Your task to perform on an android device: What's on my calendar tomorrow? Image 0: 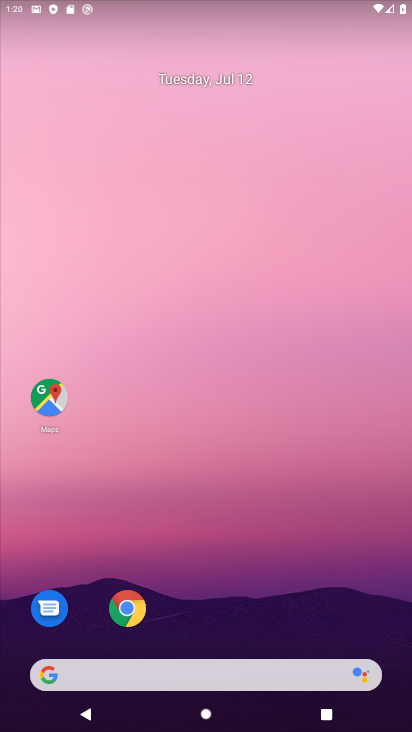
Step 0: drag from (396, 648) to (364, 345)
Your task to perform on an android device: What's on my calendar tomorrow? Image 1: 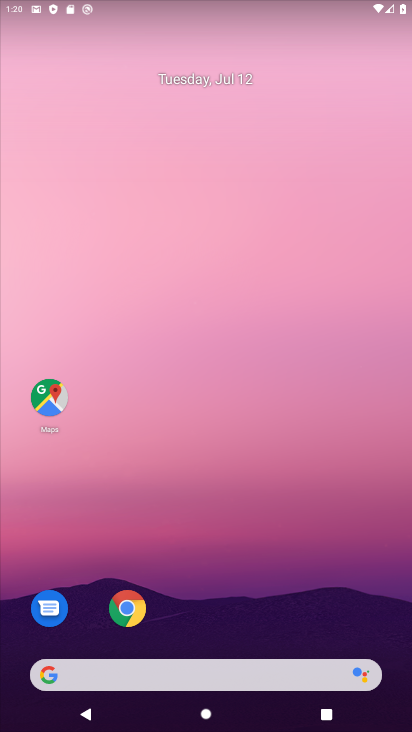
Step 1: drag from (399, 643) to (357, 257)
Your task to perform on an android device: What's on my calendar tomorrow? Image 2: 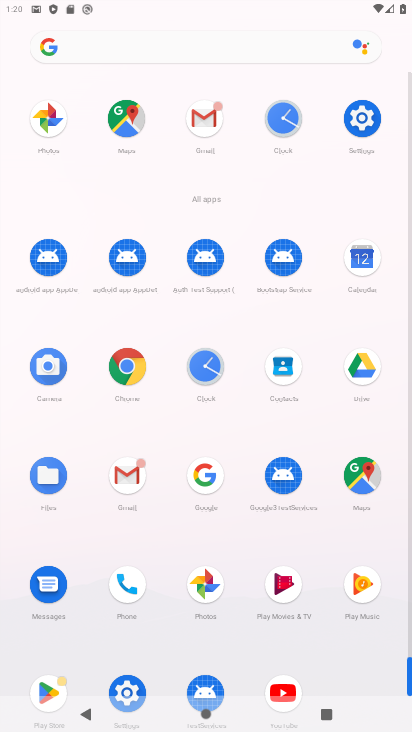
Step 2: click (359, 259)
Your task to perform on an android device: What's on my calendar tomorrow? Image 3: 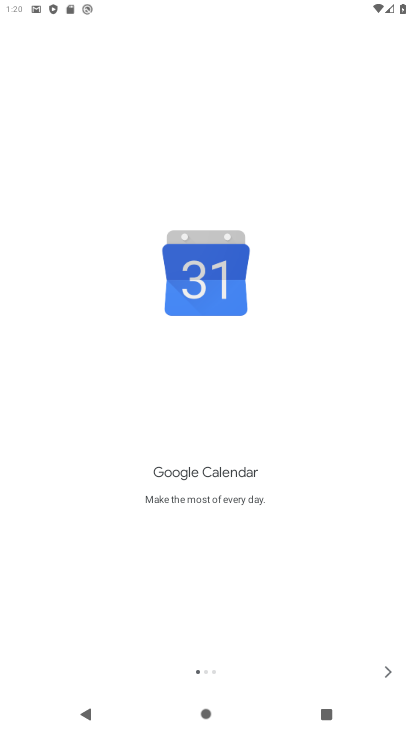
Step 3: click (388, 672)
Your task to perform on an android device: What's on my calendar tomorrow? Image 4: 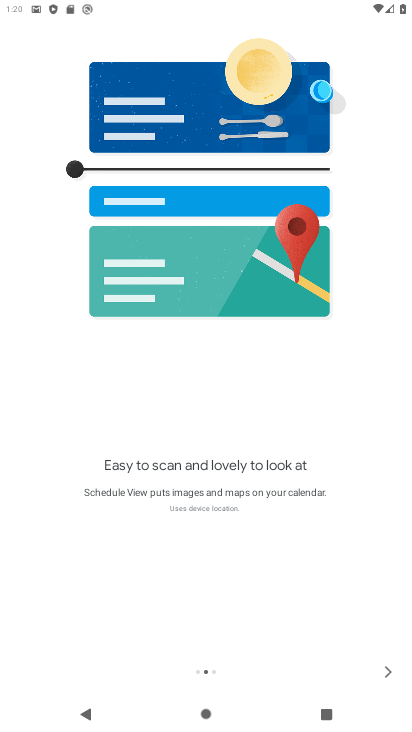
Step 4: click (388, 672)
Your task to perform on an android device: What's on my calendar tomorrow? Image 5: 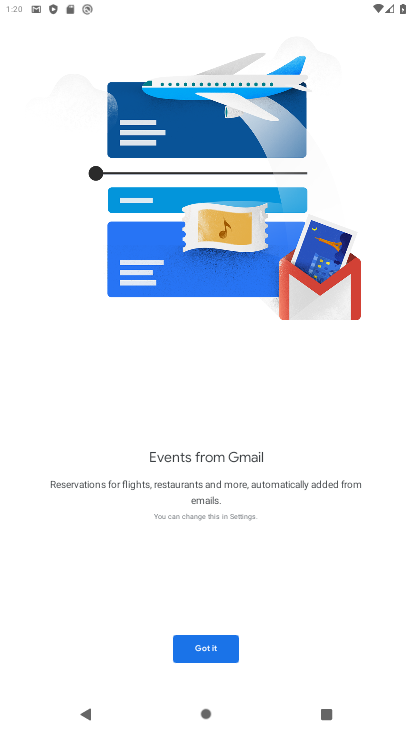
Step 5: click (221, 649)
Your task to perform on an android device: What's on my calendar tomorrow? Image 6: 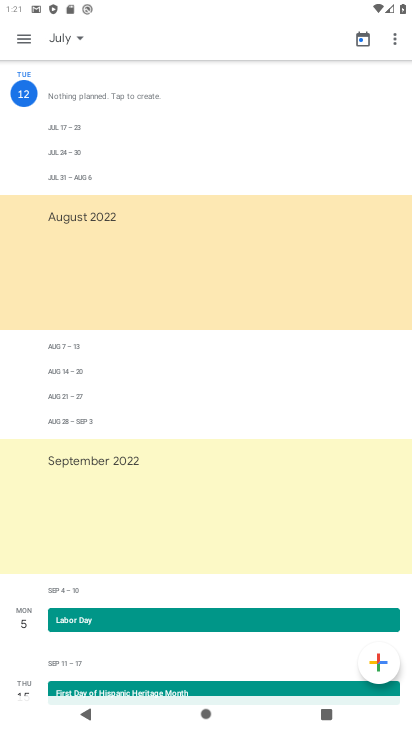
Step 6: click (27, 30)
Your task to perform on an android device: What's on my calendar tomorrow? Image 7: 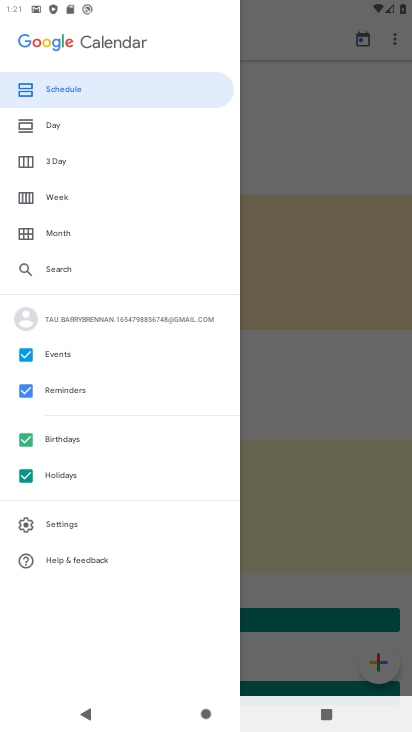
Step 7: click (80, 134)
Your task to perform on an android device: What's on my calendar tomorrow? Image 8: 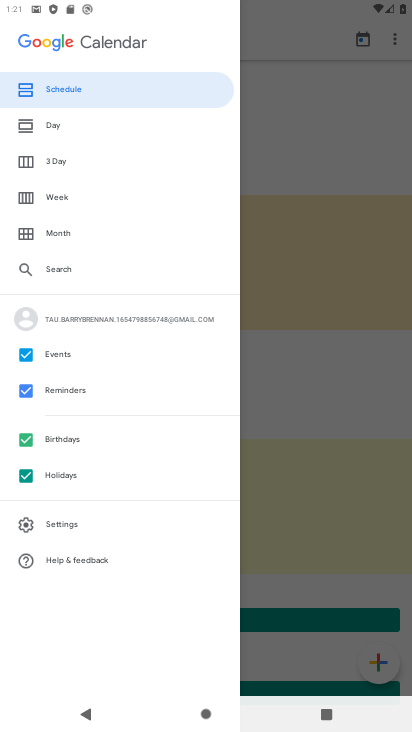
Step 8: click (54, 122)
Your task to perform on an android device: What's on my calendar tomorrow? Image 9: 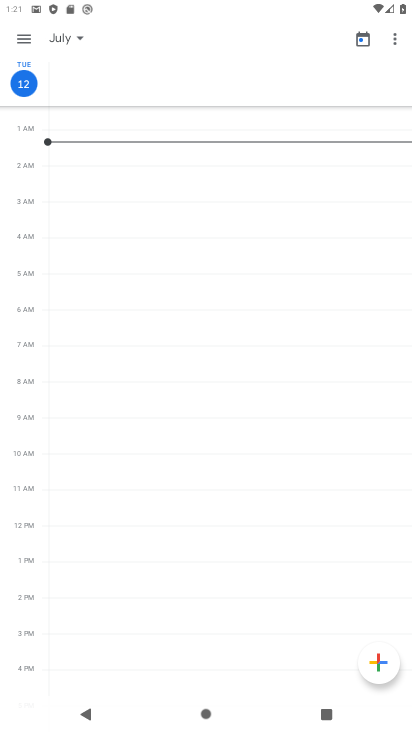
Step 9: task complete